Your task to perform on an android device: Open Google Image 0: 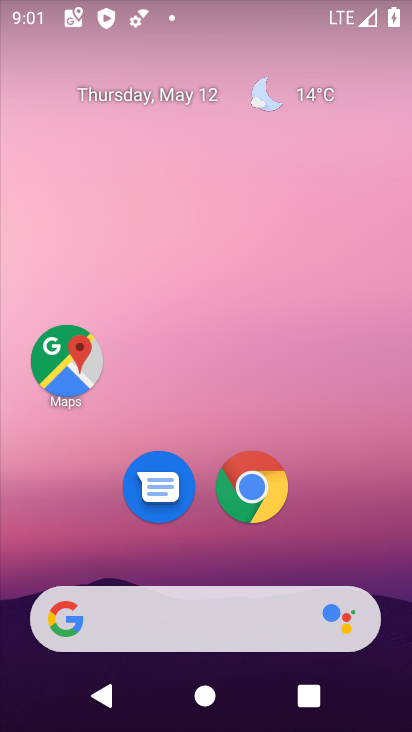
Step 0: click (74, 614)
Your task to perform on an android device: Open Google Image 1: 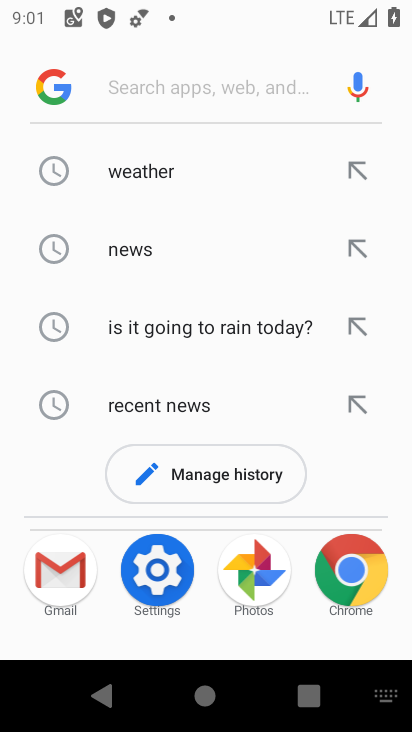
Step 1: click (56, 102)
Your task to perform on an android device: Open Google Image 2: 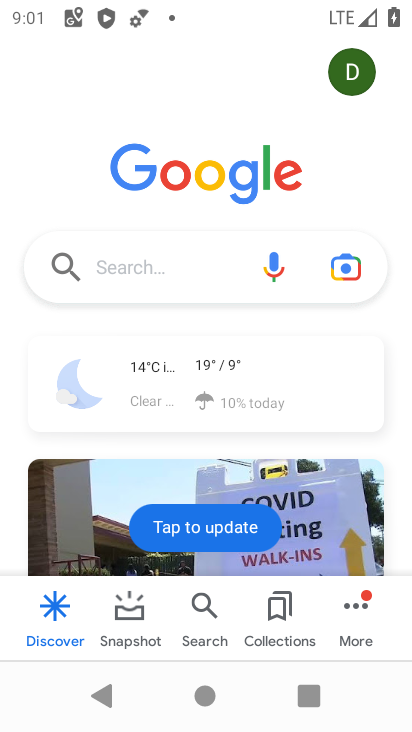
Step 2: task complete